Your task to perform on an android device: Do I have any events this weekend? Image 0: 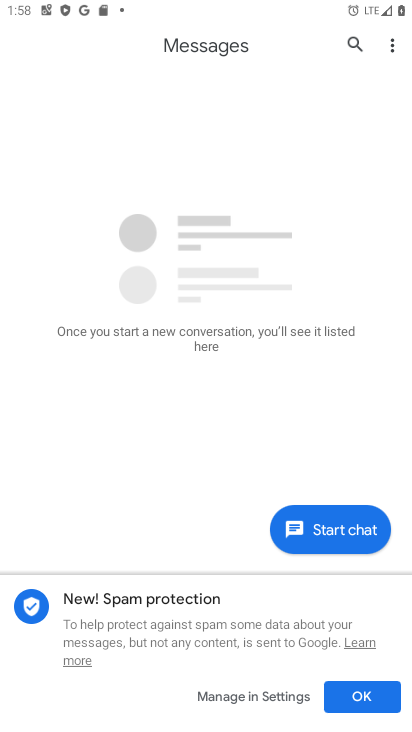
Step 0: press home button
Your task to perform on an android device: Do I have any events this weekend? Image 1: 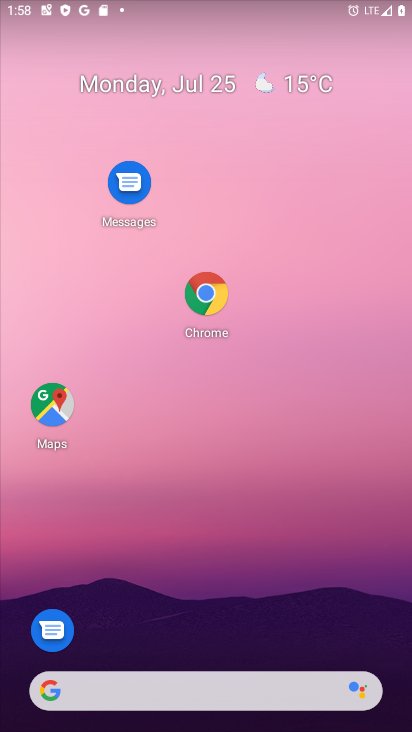
Step 1: drag from (265, 572) to (265, 84)
Your task to perform on an android device: Do I have any events this weekend? Image 2: 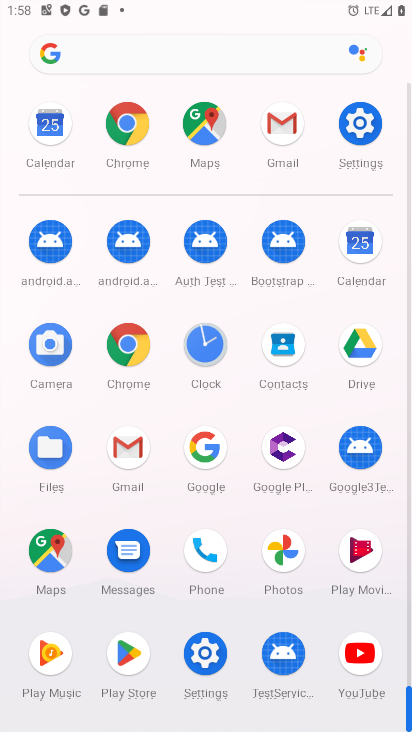
Step 2: click (360, 243)
Your task to perform on an android device: Do I have any events this weekend? Image 3: 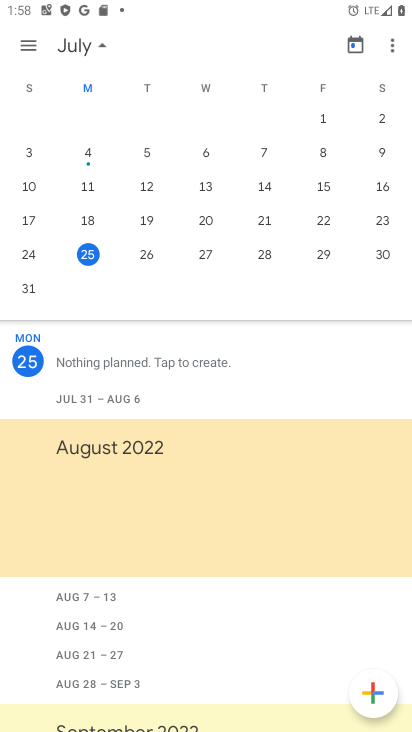
Step 3: drag from (65, 176) to (407, 269)
Your task to perform on an android device: Do I have any events this weekend? Image 4: 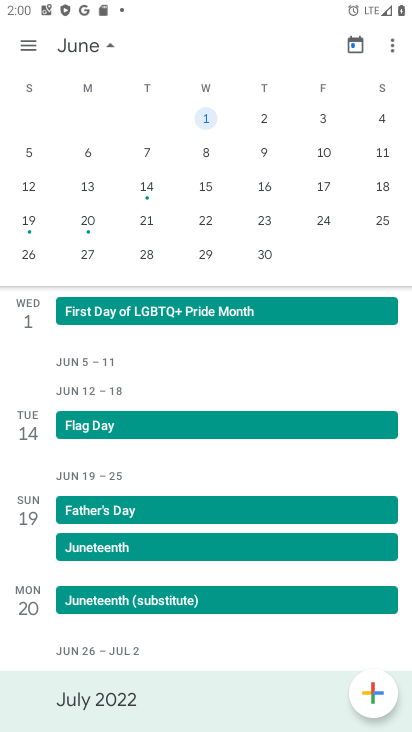
Step 4: drag from (393, 178) to (24, 164)
Your task to perform on an android device: Do I have any events this weekend? Image 5: 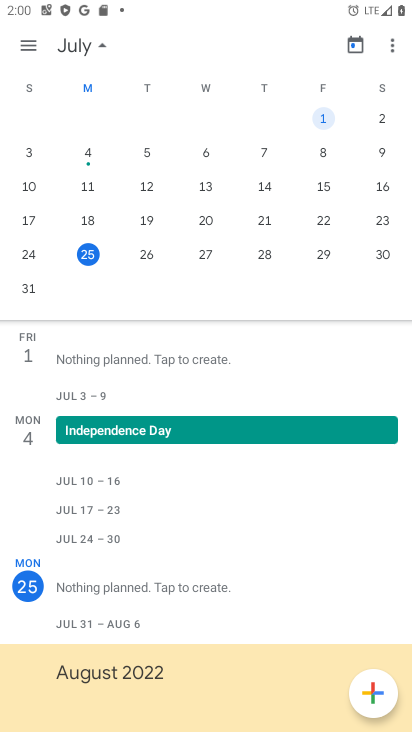
Step 5: click (321, 259)
Your task to perform on an android device: Do I have any events this weekend? Image 6: 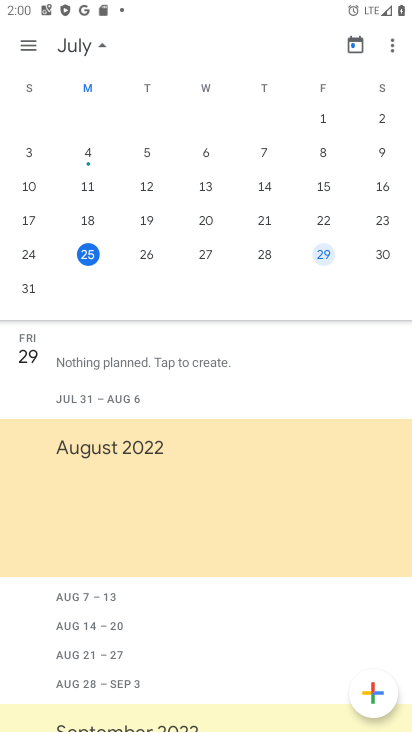
Step 6: task complete